Your task to perform on an android device: change keyboard looks Image 0: 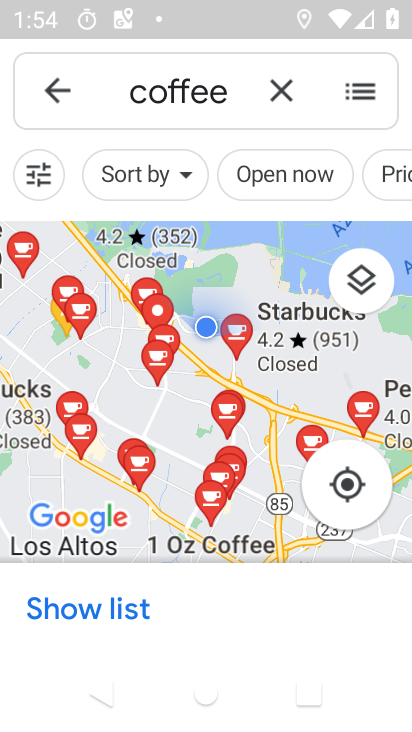
Step 0: press home button
Your task to perform on an android device: change keyboard looks Image 1: 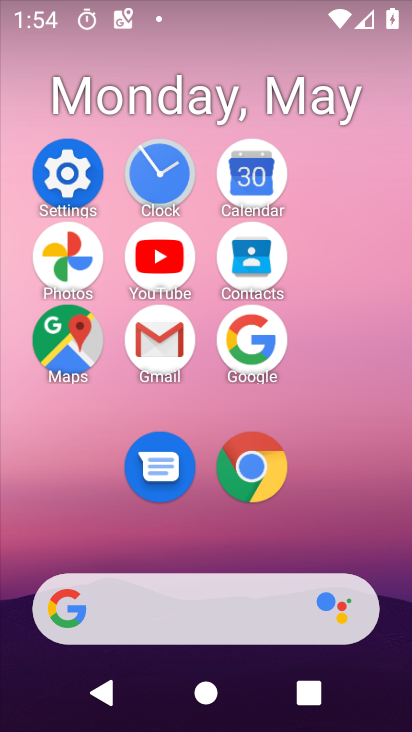
Step 1: click (52, 155)
Your task to perform on an android device: change keyboard looks Image 2: 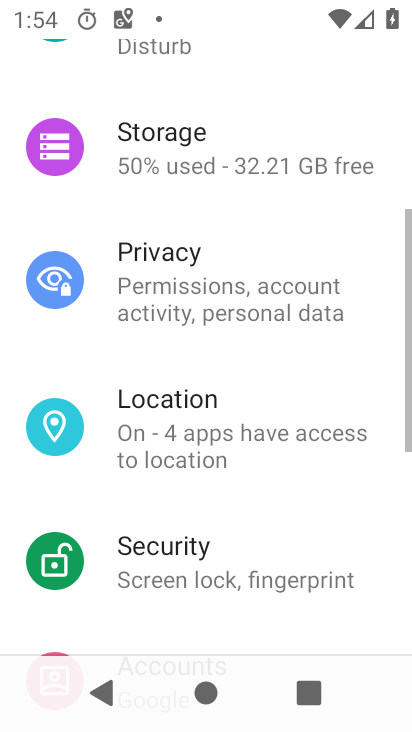
Step 2: drag from (252, 586) to (308, 143)
Your task to perform on an android device: change keyboard looks Image 3: 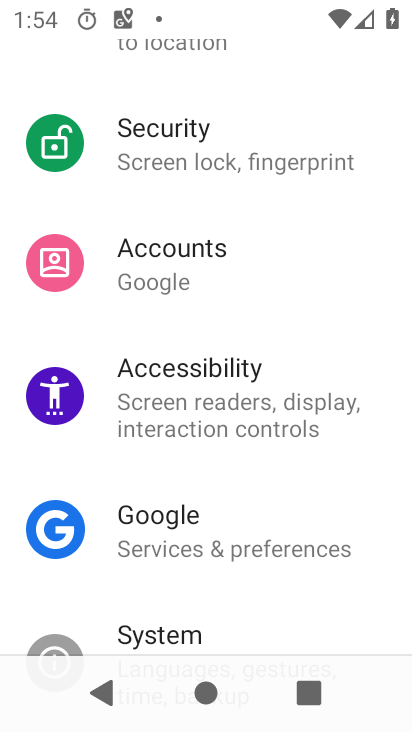
Step 3: drag from (248, 531) to (246, 247)
Your task to perform on an android device: change keyboard looks Image 4: 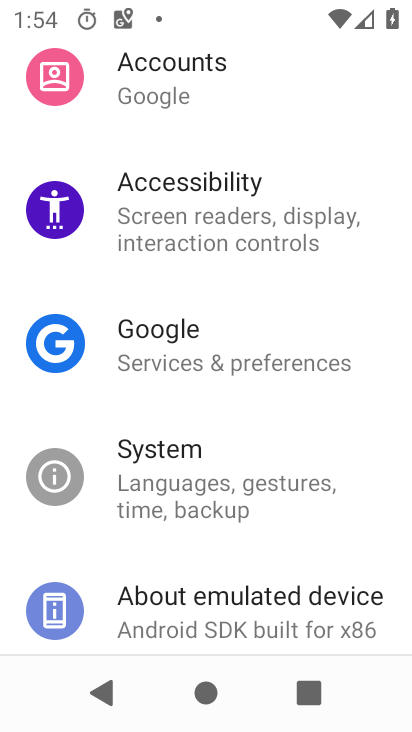
Step 4: click (247, 476)
Your task to perform on an android device: change keyboard looks Image 5: 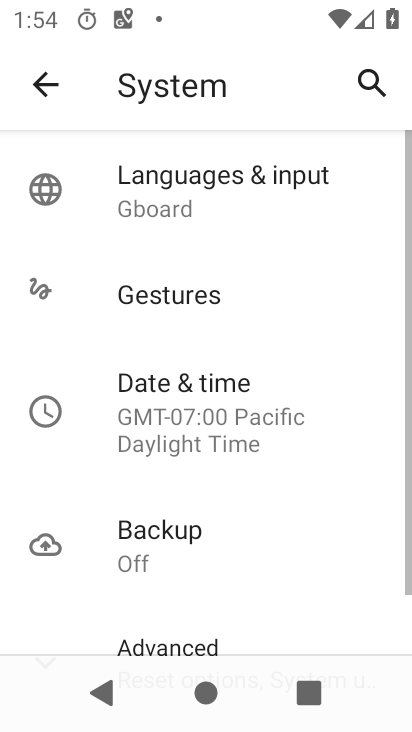
Step 5: click (178, 210)
Your task to perform on an android device: change keyboard looks Image 6: 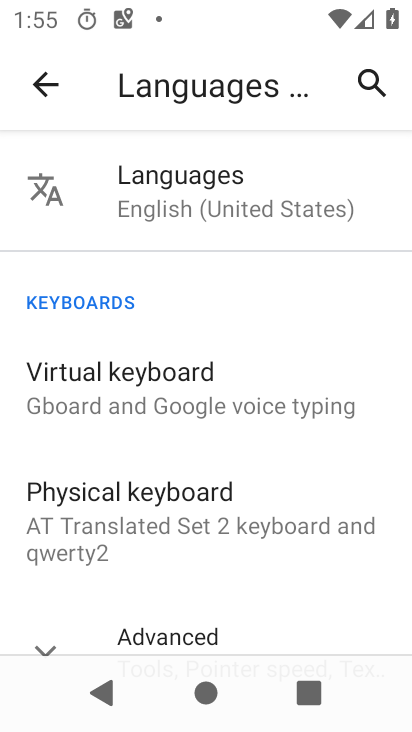
Step 6: click (194, 392)
Your task to perform on an android device: change keyboard looks Image 7: 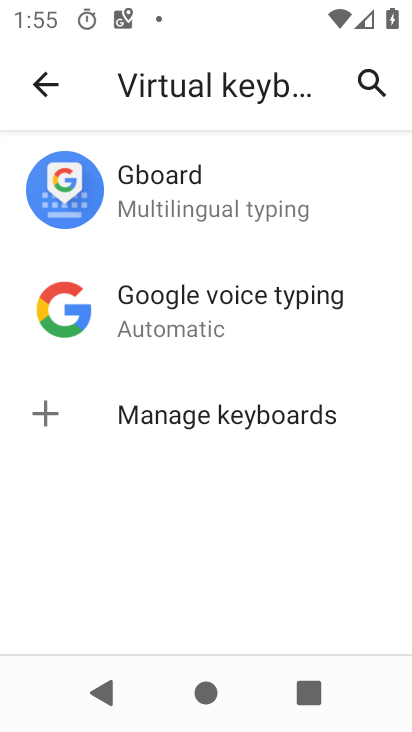
Step 7: click (172, 194)
Your task to perform on an android device: change keyboard looks Image 8: 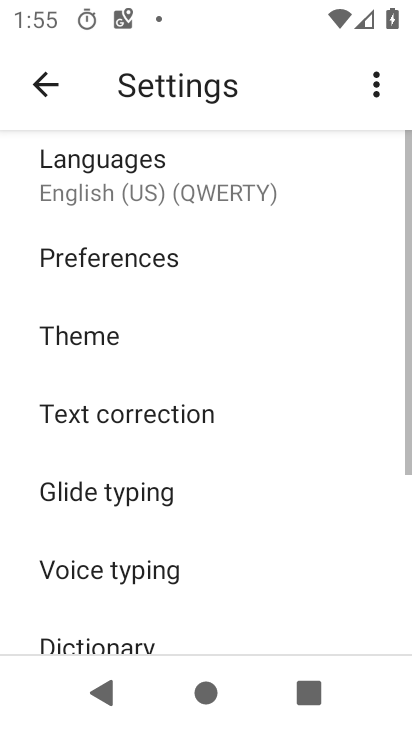
Step 8: click (72, 355)
Your task to perform on an android device: change keyboard looks Image 9: 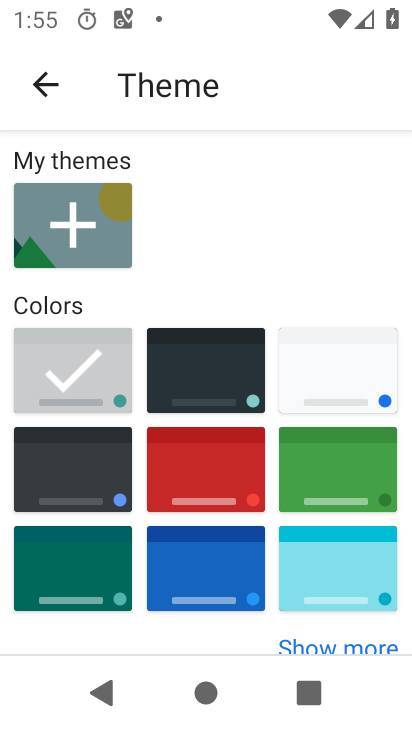
Step 9: click (243, 379)
Your task to perform on an android device: change keyboard looks Image 10: 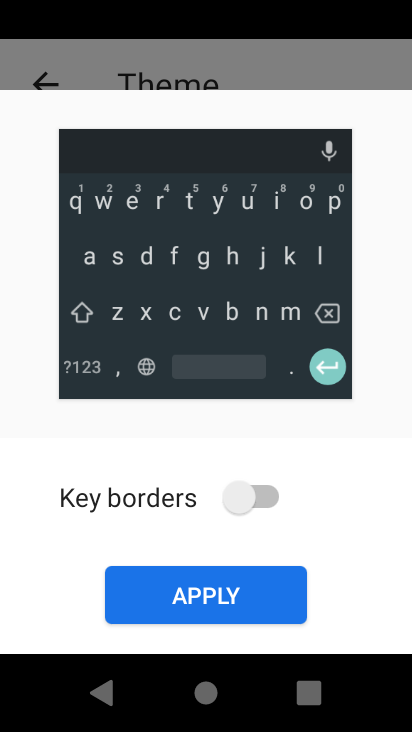
Step 10: click (233, 502)
Your task to perform on an android device: change keyboard looks Image 11: 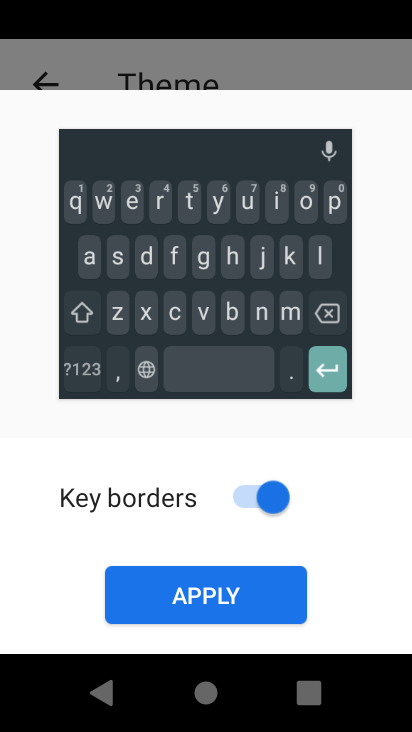
Step 11: click (264, 588)
Your task to perform on an android device: change keyboard looks Image 12: 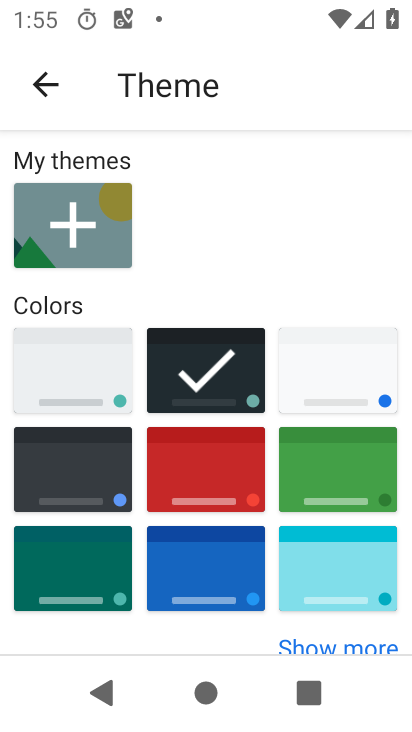
Step 12: task complete